Your task to perform on an android device: turn off wifi Image 0: 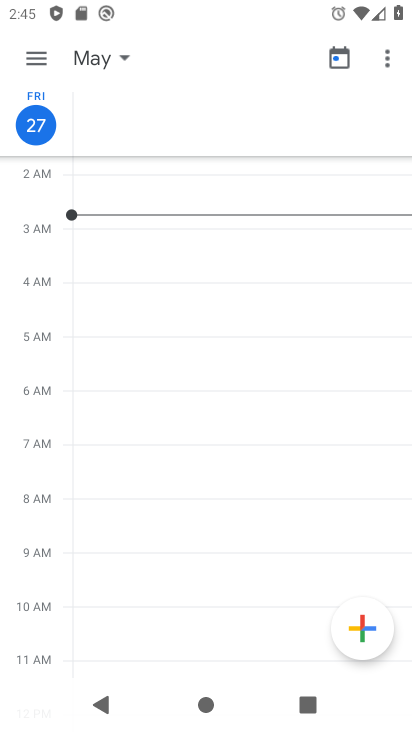
Step 0: press home button
Your task to perform on an android device: turn off wifi Image 1: 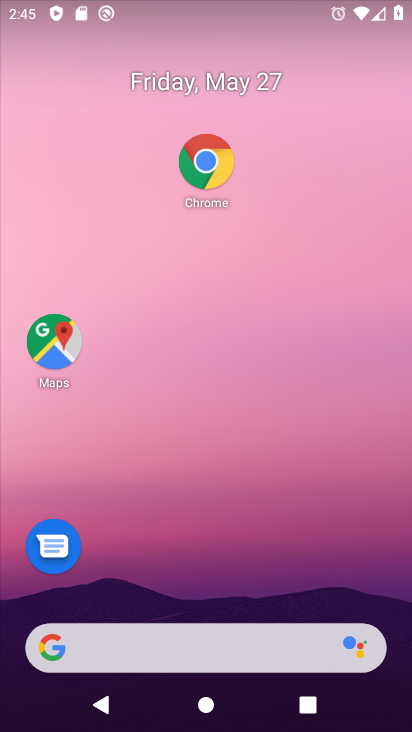
Step 1: drag from (211, 354) to (246, 145)
Your task to perform on an android device: turn off wifi Image 2: 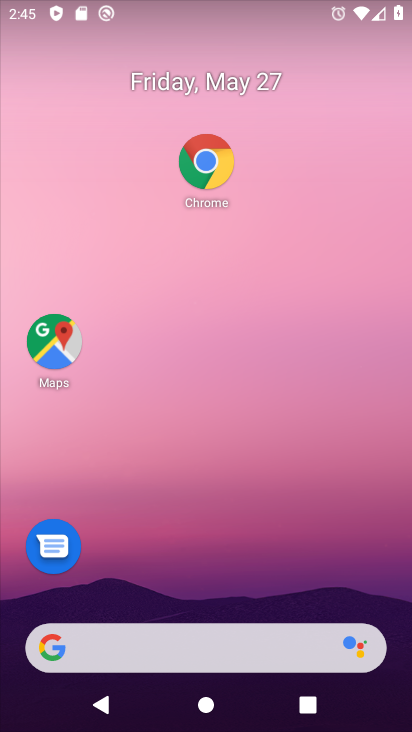
Step 2: drag from (120, 586) to (169, 137)
Your task to perform on an android device: turn off wifi Image 3: 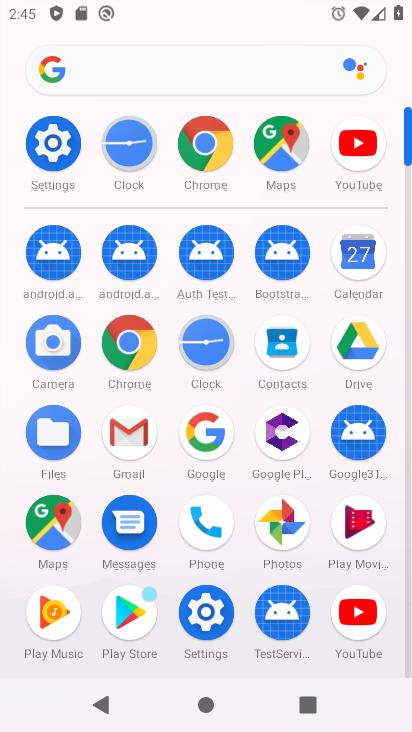
Step 3: click (58, 136)
Your task to perform on an android device: turn off wifi Image 4: 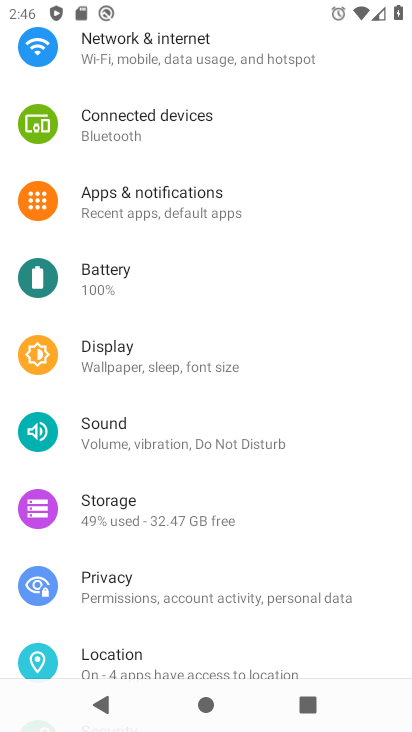
Step 4: drag from (186, 176) to (254, 642)
Your task to perform on an android device: turn off wifi Image 5: 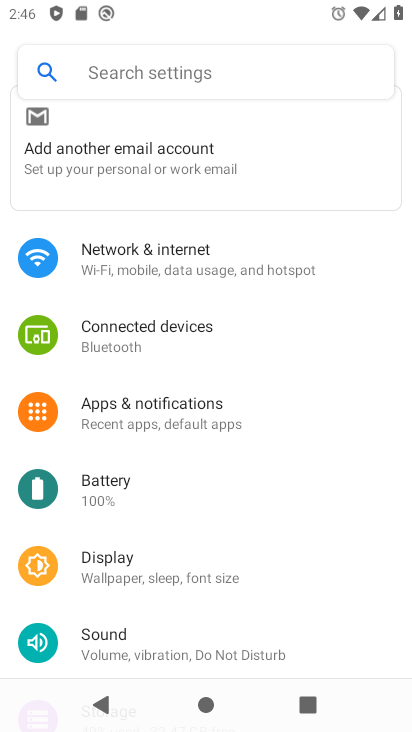
Step 5: click (150, 256)
Your task to perform on an android device: turn off wifi Image 6: 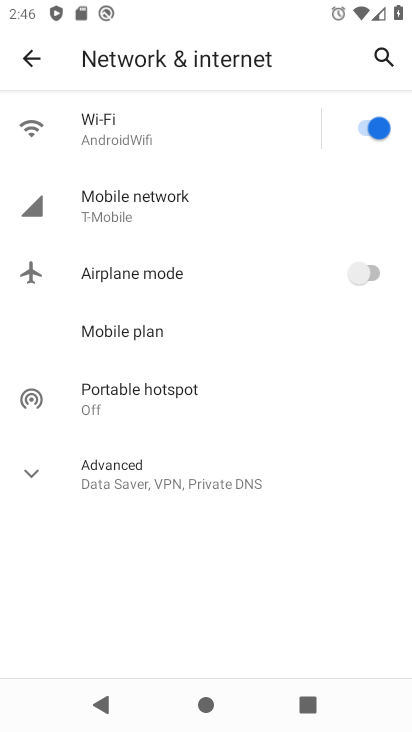
Step 6: click (361, 123)
Your task to perform on an android device: turn off wifi Image 7: 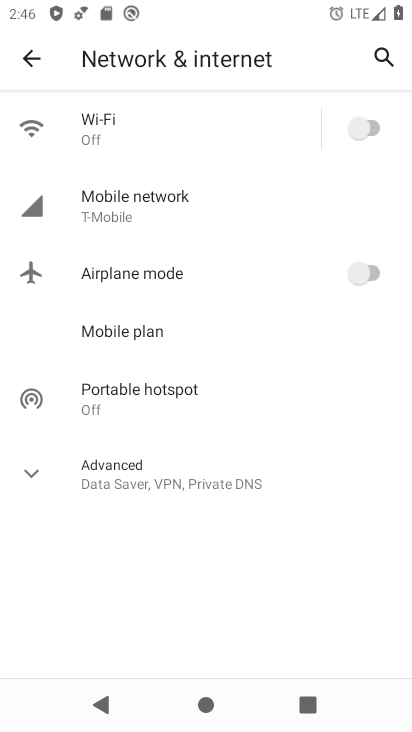
Step 7: task complete